Your task to perform on an android device: Go to notification settings Image 0: 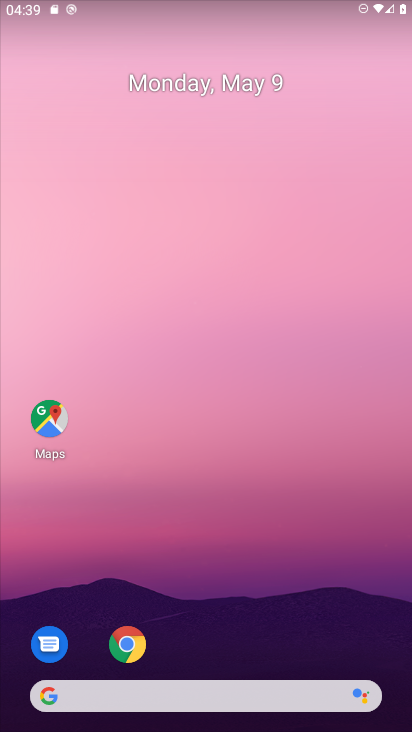
Step 0: drag from (271, 602) to (293, 198)
Your task to perform on an android device: Go to notification settings Image 1: 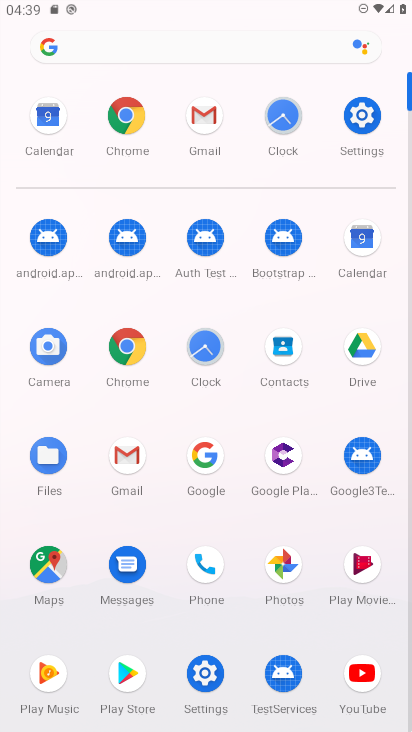
Step 1: click (370, 129)
Your task to perform on an android device: Go to notification settings Image 2: 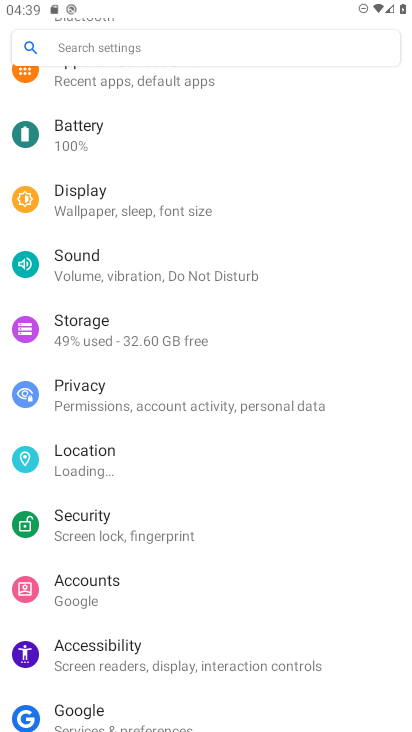
Step 2: drag from (93, 93) to (79, 320)
Your task to perform on an android device: Go to notification settings Image 3: 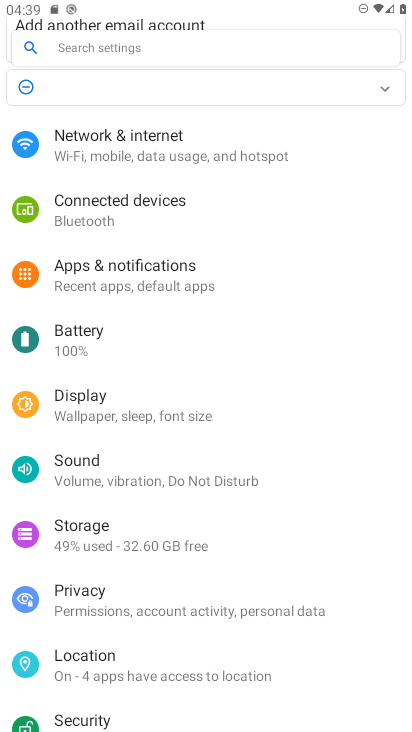
Step 3: click (103, 279)
Your task to perform on an android device: Go to notification settings Image 4: 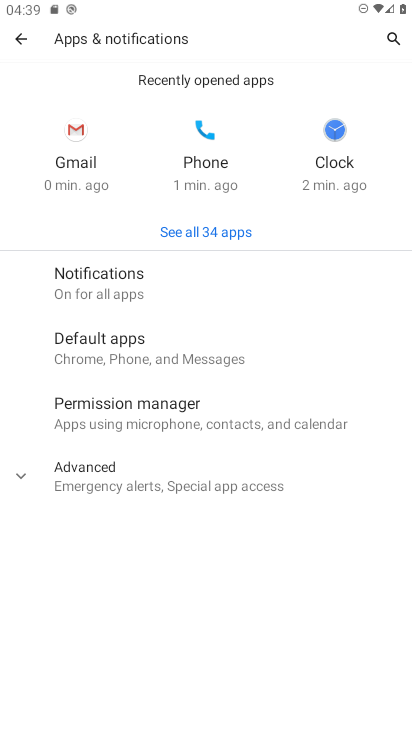
Step 4: click (103, 280)
Your task to perform on an android device: Go to notification settings Image 5: 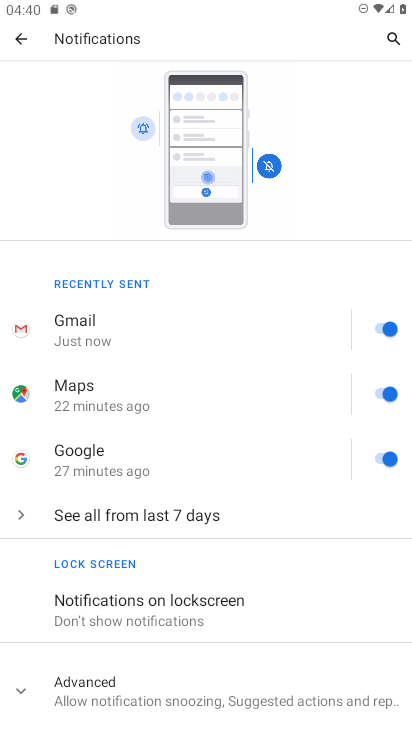
Step 5: task complete